Your task to perform on an android device: create a new album in the google photos Image 0: 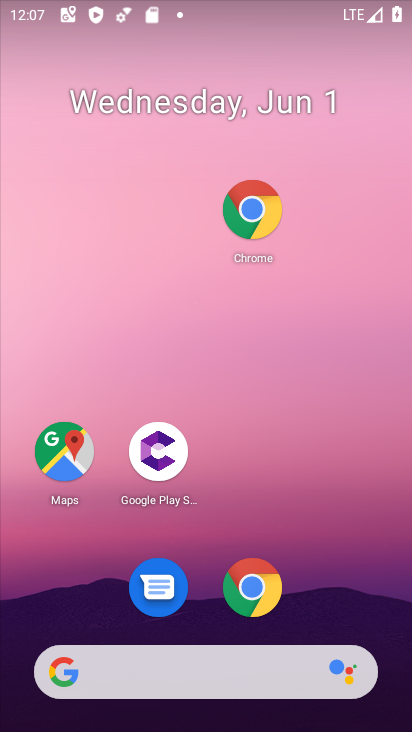
Step 0: drag from (346, 569) to (348, 61)
Your task to perform on an android device: create a new album in the google photos Image 1: 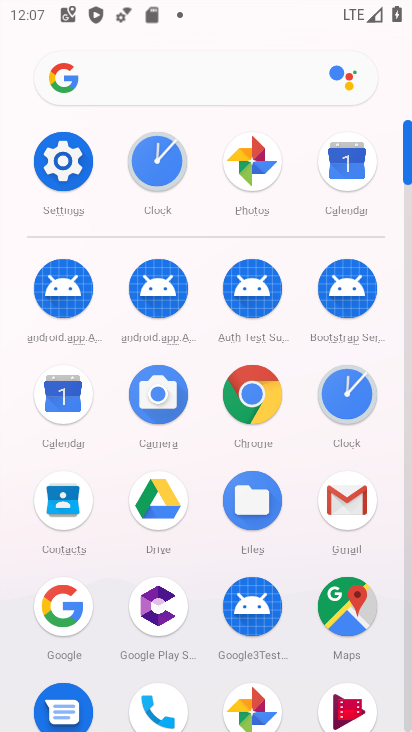
Step 1: click (245, 173)
Your task to perform on an android device: create a new album in the google photos Image 2: 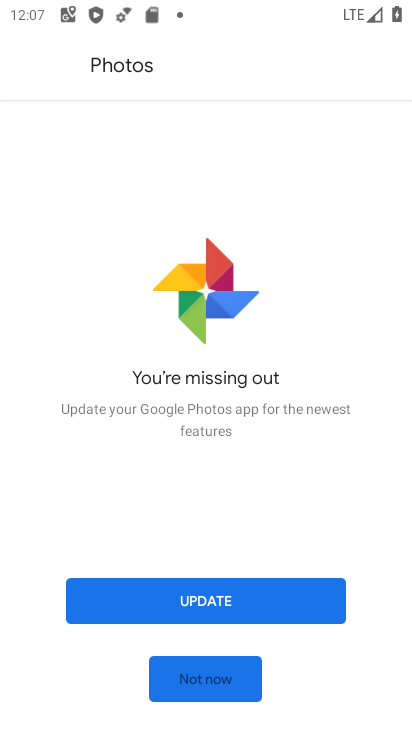
Step 2: click (213, 665)
Your task to perform on an android device: create a new album in the google photos Image 3: 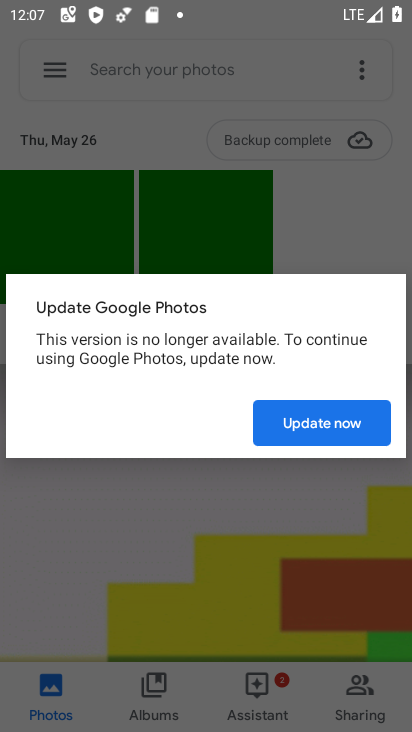
Step 3: click (306, 411)
Your task to perform on an android device: create a new album in the google photos Image 4: 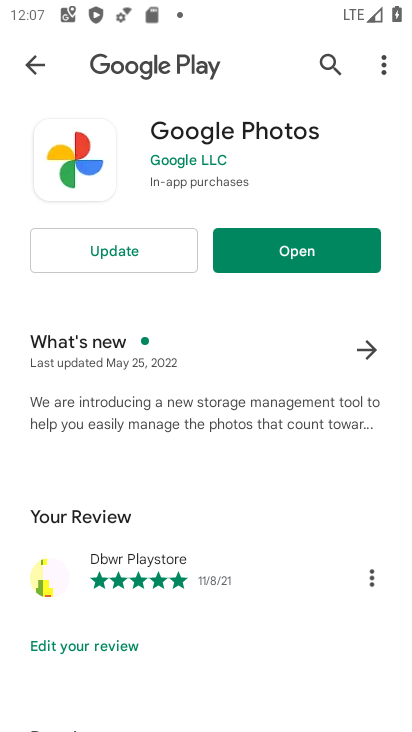
Step 4: click (289, 246)
Your task to perform on an android device: create a new album in the google photos Image 5: 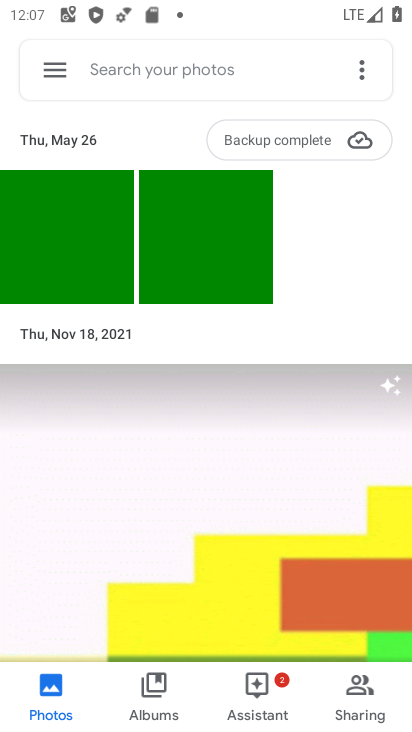
Step 5: click (98, 279)
Your task to perform on an android device: create a new album in the google photos Image 6: 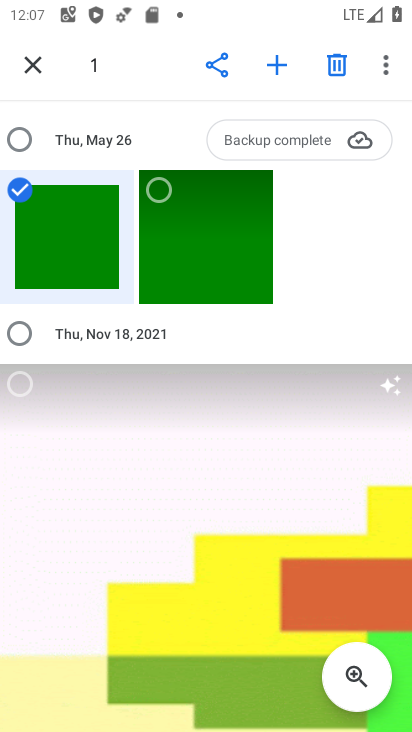
Step 6: click (189, 248)
Your task to perform on an android device: create a new album in the google photos Image 7: 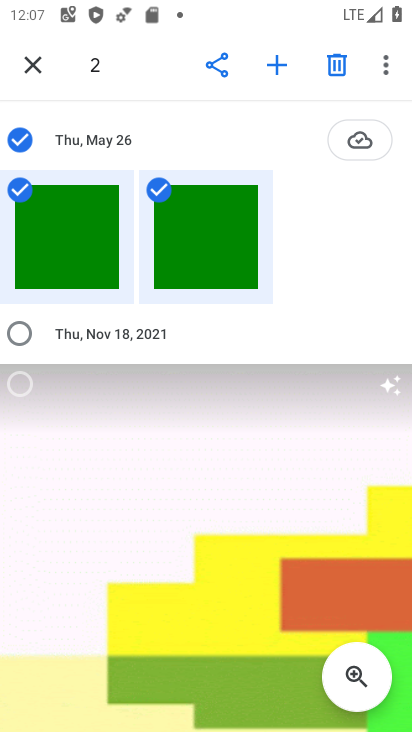
Step 7: click (279, 73)
Your task to perform on an android device: create a new album in the google photos Image 8: 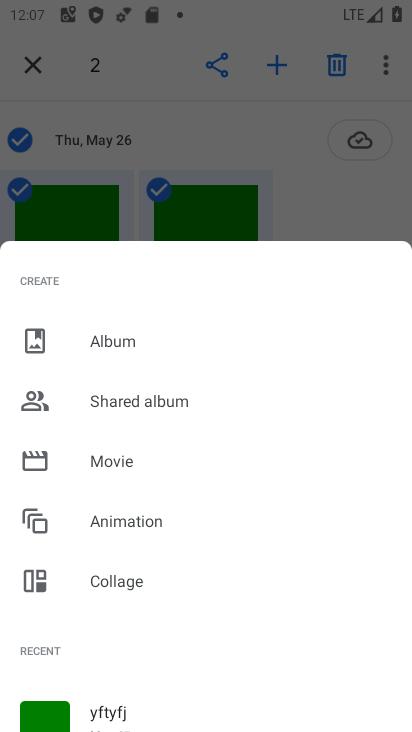
Step 8: click (163, 343)
Your task to perform on an android device: create a new album in the google photos Image 9: 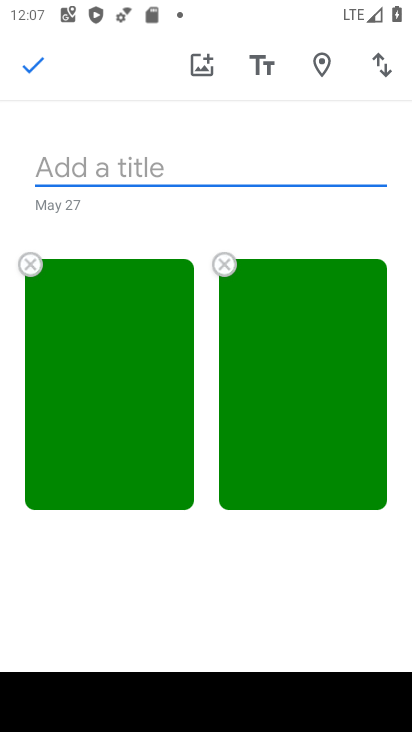
Step 9: type "jhhj"
Your task to perform on an android device: create a new album in the google photos Image 10: 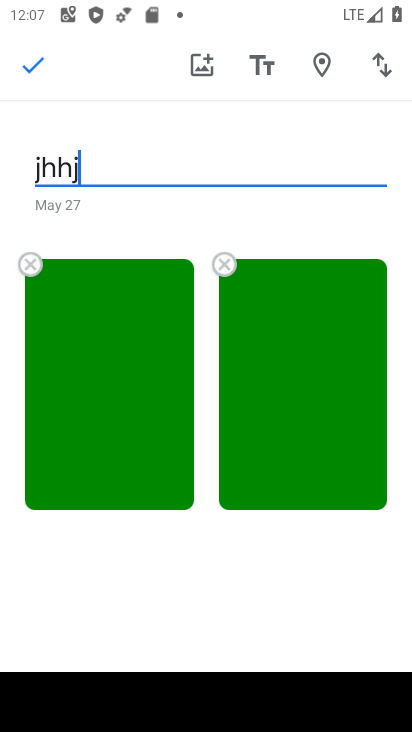
Step 10: click (38, 59)
Your task to perform on an android device: create a new album in the google photos Image 11: 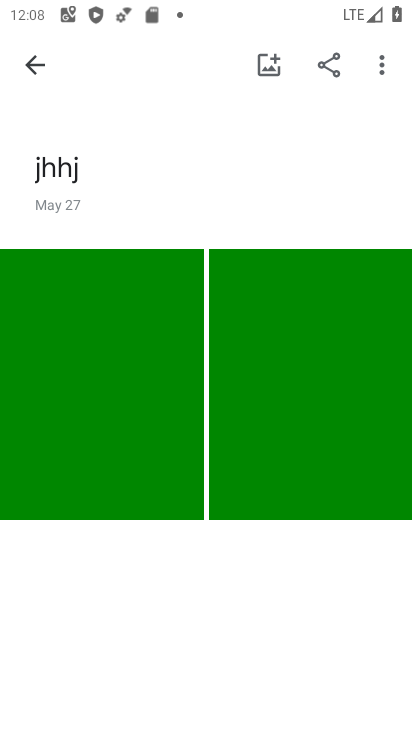
Step 11: task complete